Your task to perform on an android device: Go to Amazon Image 0: 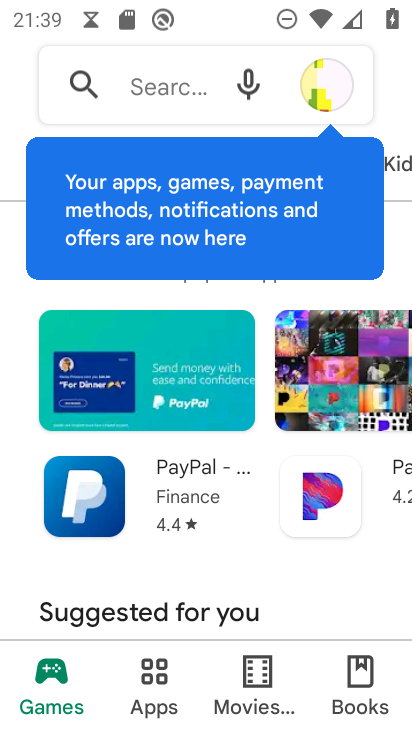
Step 0: press home button
Your task to perform on an android device: Go to Amazon Image 1: 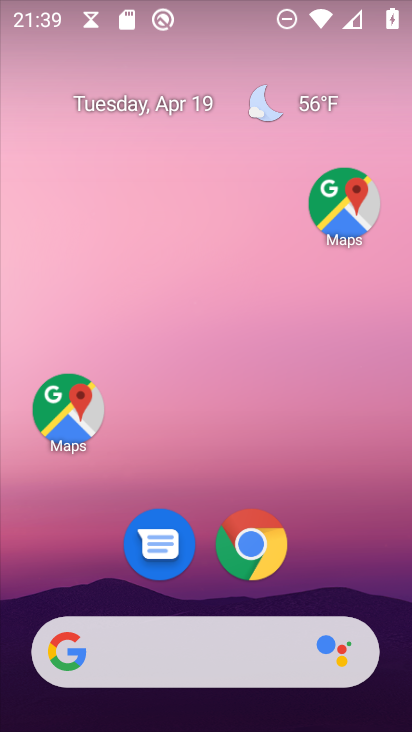
Step 1: drag from (237, 370) to (320, 53)
Your task to perform on an android device: Go to Amazon Image 2: 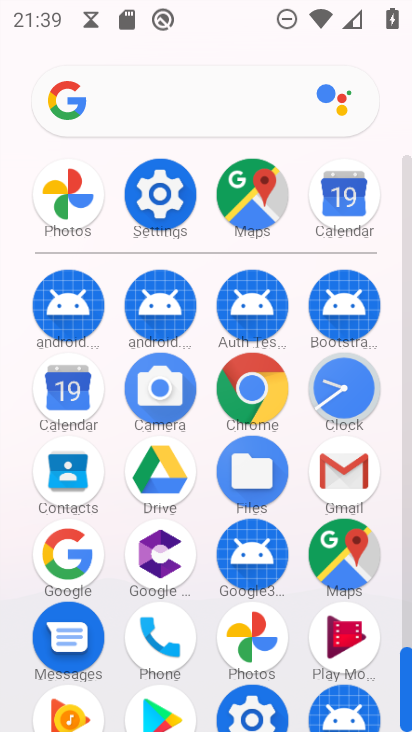
Step 2: click (263, 391)
Your task to perform on an android device: Go to Amazon Image 3: 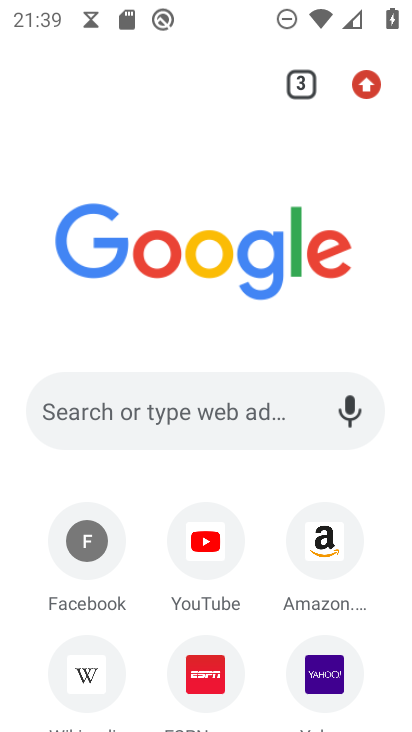
Step 3: click (328, 542)
Your task to perform on an android device: Go to Amazon Image 4: 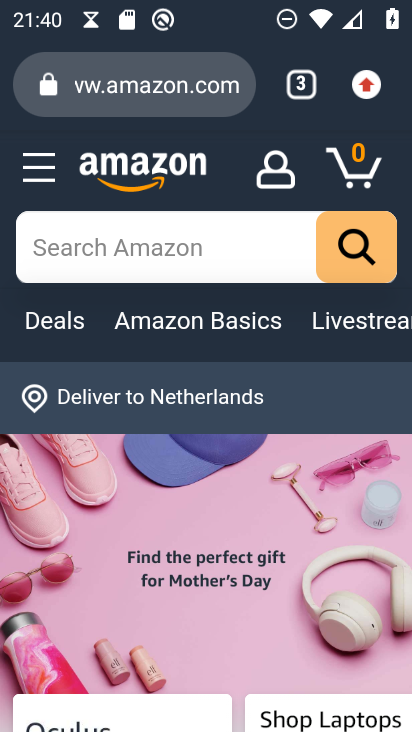
Step 4: task complete